Your task to perform on an android device: open a bookmark in the chrome app Image 0: 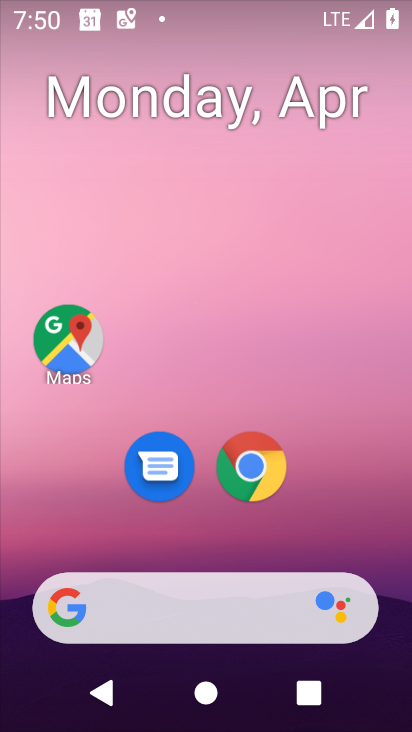
Step 0: click (252, 124)
Your task to perform on an android device: open a bookmark in the chrome app Image 1: 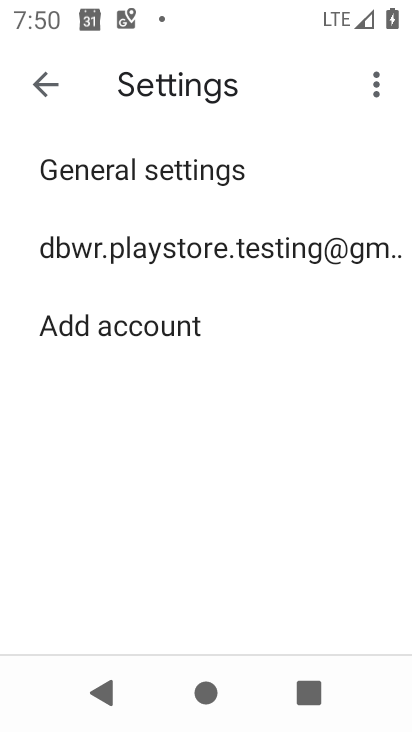
Step 1: click (181, 253)
Your task to perform on an android device: open a bookmark in the chrome app Image 2: 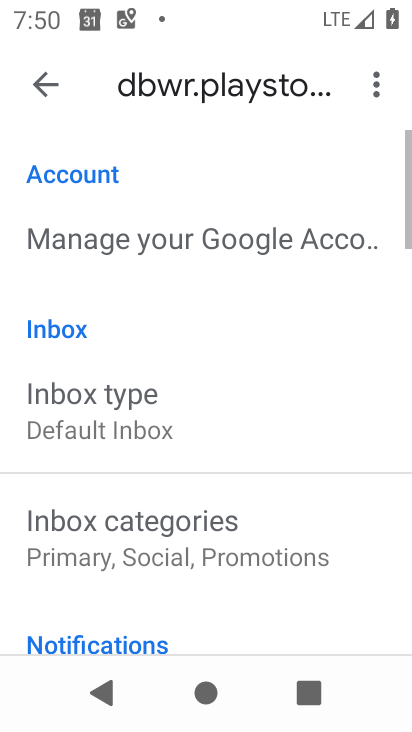
Step 2: press home button
Your task to perform on an android device: open a bookmark in the chrome app Image 3: 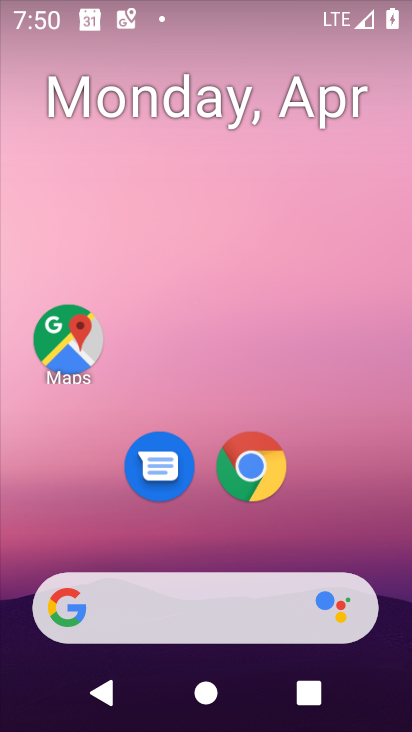
Step 3: click (248, 457)
Your task to perform on an android device: open a bookmark in the chrome app Image 4: 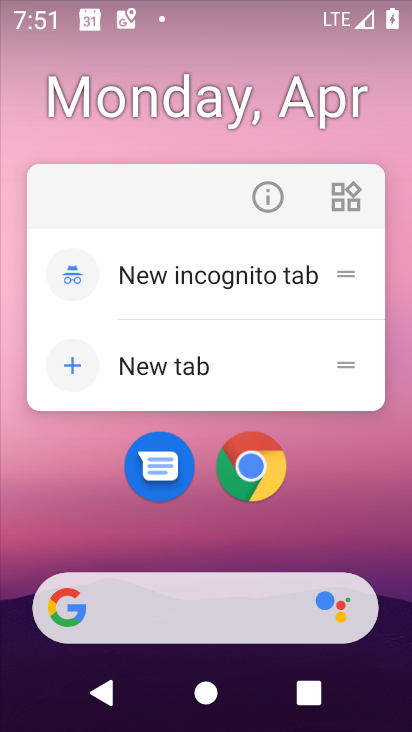
Step 4: click (263, 199)
Your task to perform on an android device: open a bookmark in the chrome app Image 5: 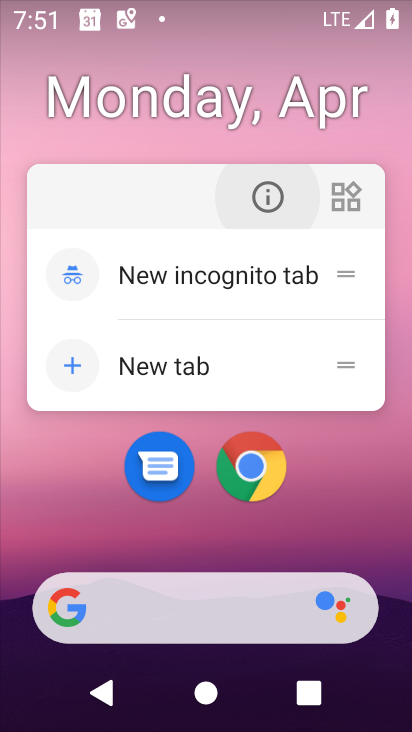
Step 5: click (259, 199)
Your task to perform on an android device: open a bookmark in the chrome app Image 6: 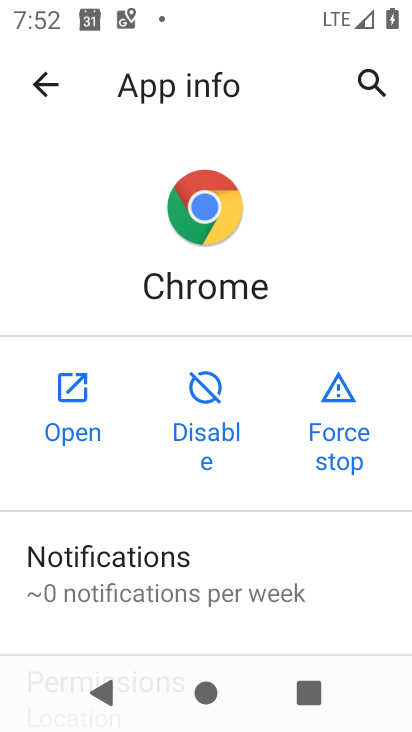
Step 6: click (65, 426)
Your task to perform on an android device: open a bookmark in the chrome app Image 7: 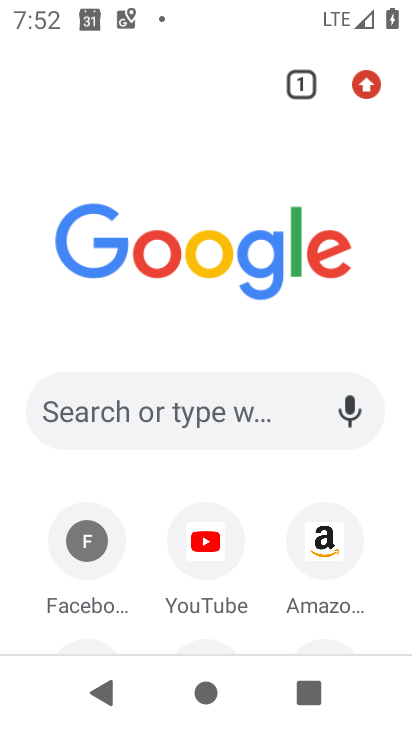
Step 7: drag from (362, 91) to (168, 432)
Your task to perform on an android device: open a bookmark in the chrome app Image 8: 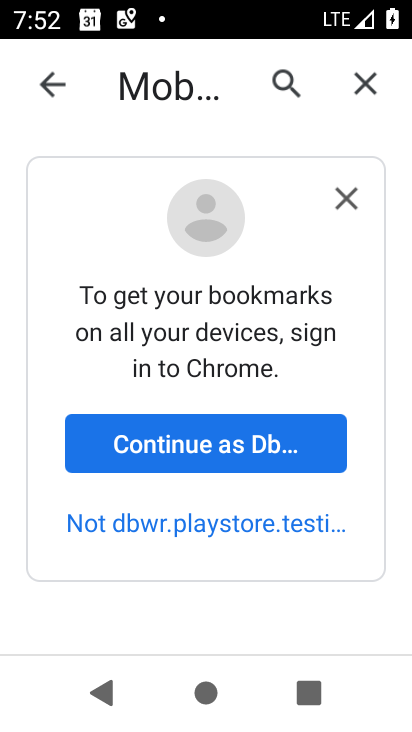
Step 8: drag from (213, 579) to (290, 180)
Your task to perform on an android device: open a bookmark in the chrome app Image 9: 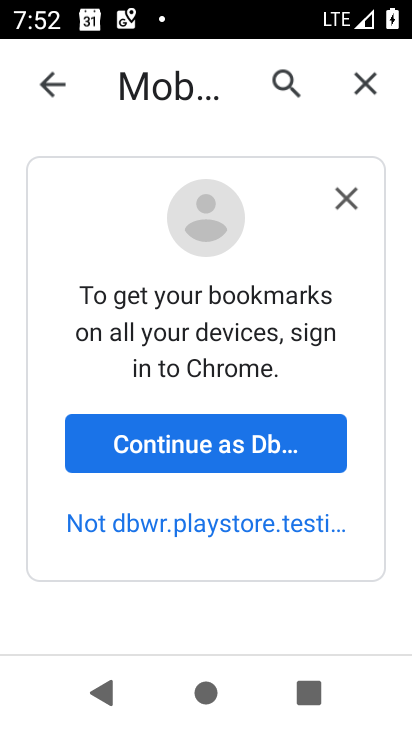
Step 9: click (341, 203)
Your task to perform on an android device: open a bookmark in the chrome app Image 10: 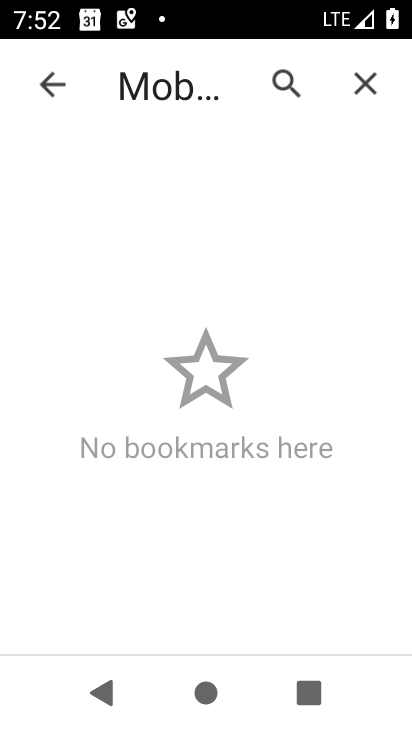
Step 10: task complete